Your task to perform on an android device: Open the map Image 0: 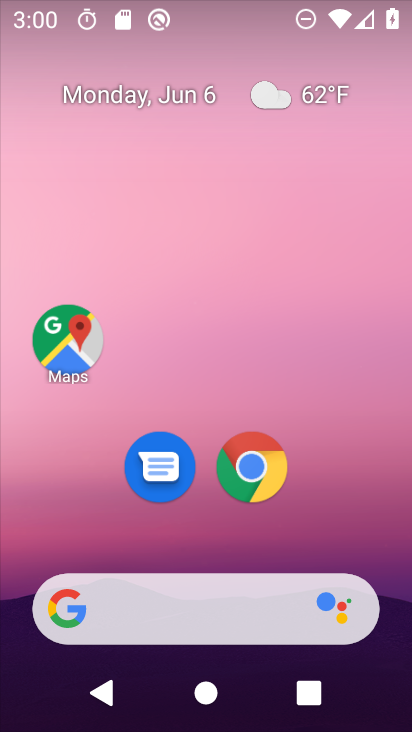
Step 0: click (61, 344)
Your task to perform on an android device: Open the map Image 1: 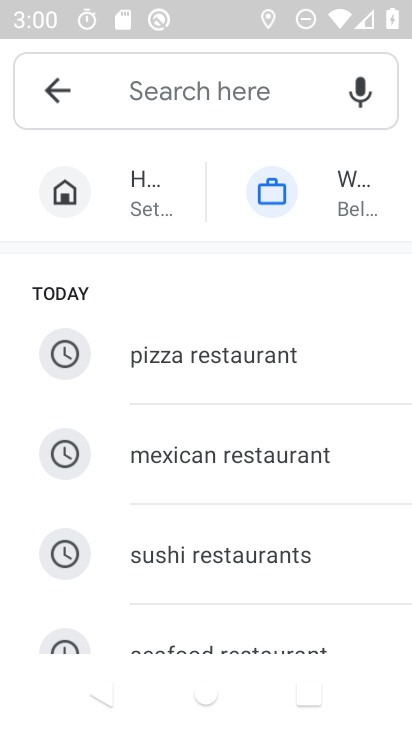
Step 1: task complete